Your task to perform on an android device: Open privacy settings Image 0: 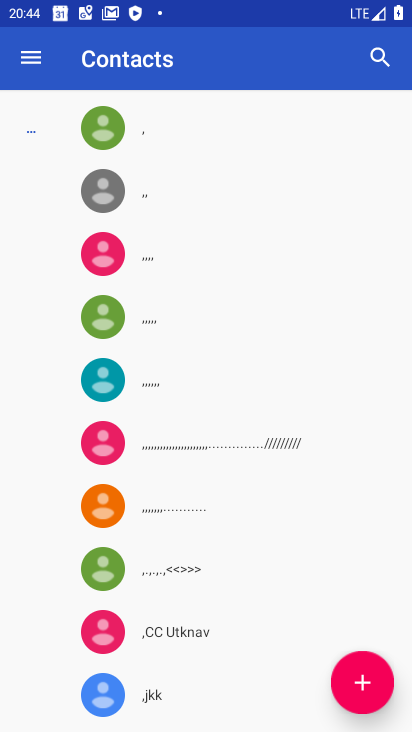
Step 0: press home button
Your task to perform on an android device: Open privacy settings Image 1: 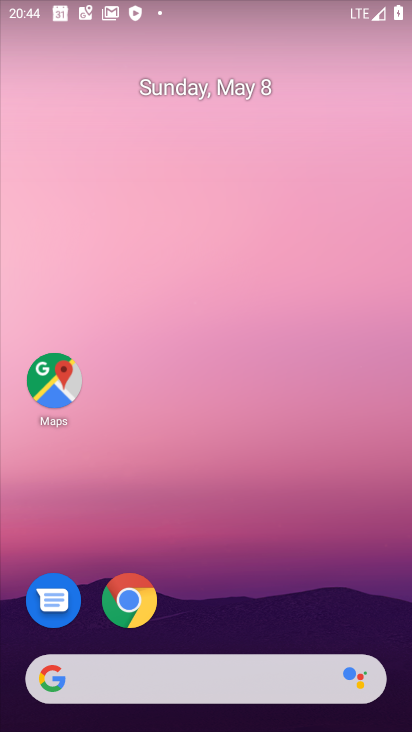
Step 1: drag from (245, 710) to (272, 197)
Your task to perform on an android device: Open privacy settings Image 2: 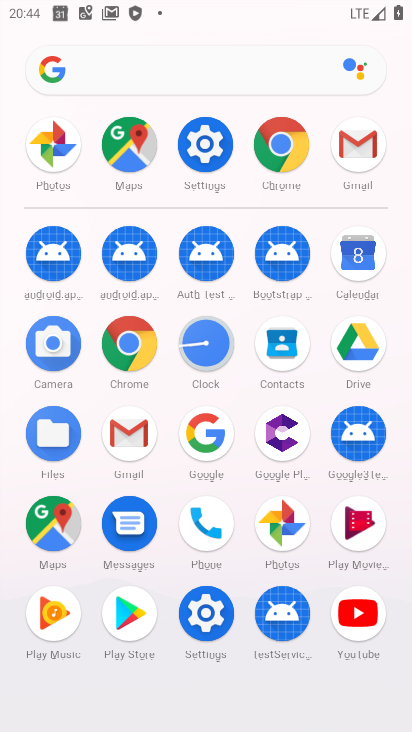
Step 2: click (193, 157)
Your task to perform on an android device: Open privacy settings Image 3: 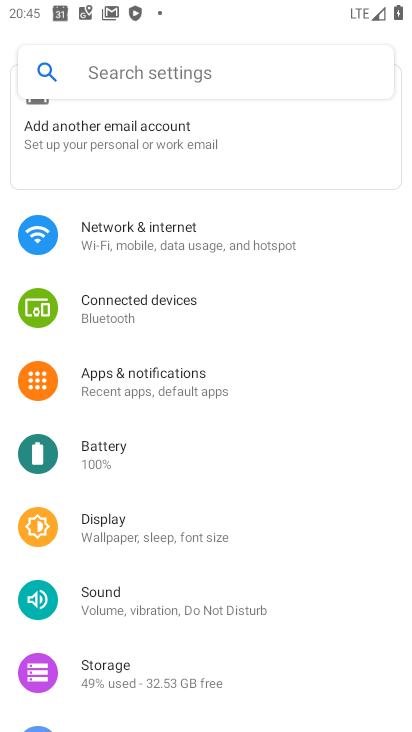
Step 3: drag from (157, 492) to (188, 414)
Your task to perform on an android device: Open privacy settings Image 4: 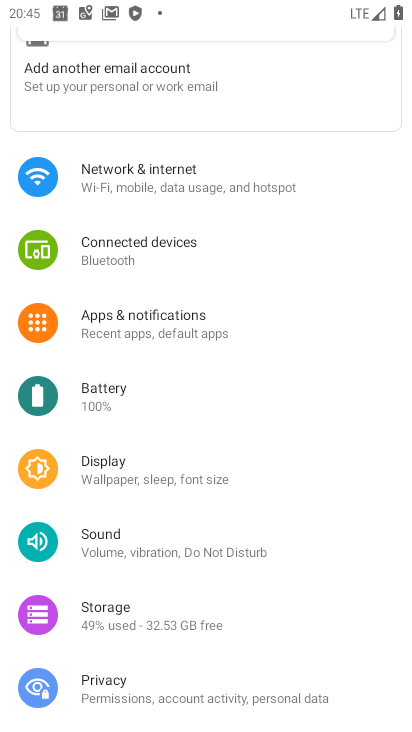
Step 4: click (123, 679)
Your task to perform on an android device: Open privacy settings Image 5: 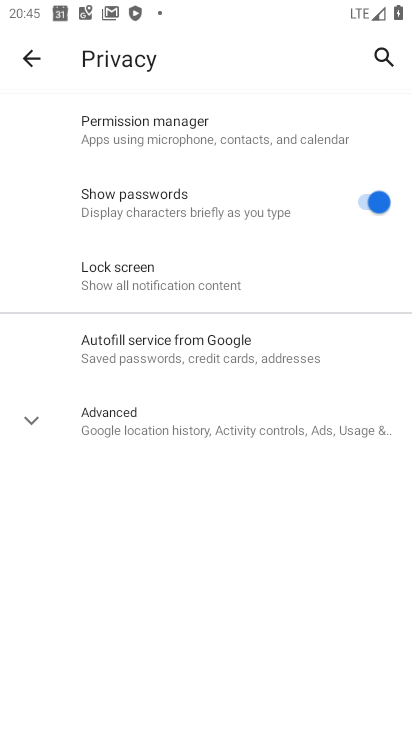
Step 5: task complete